Your task to perform on an android device: What's the weather going to be this weekend? Image 0: 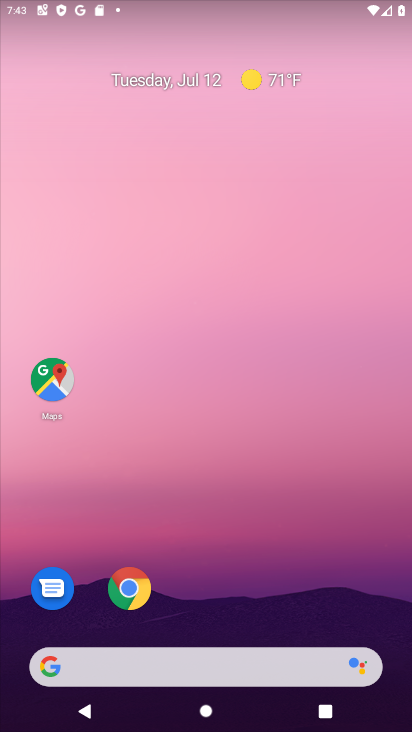
Step 0: click (121, 602)
Your task to perform on an android device: What's the weather going to be this weekend? Image 1: 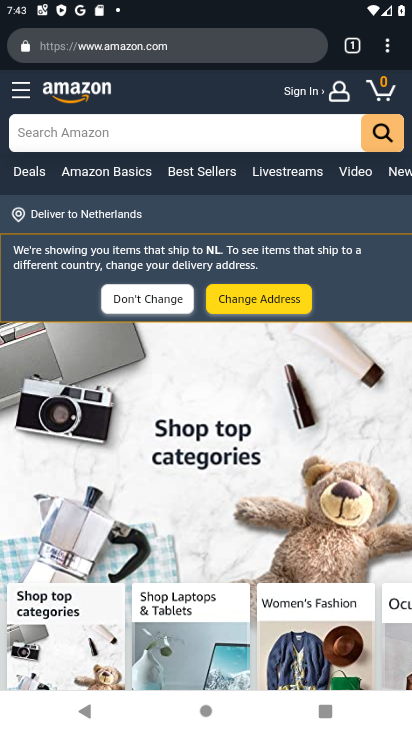
Step 1: click (122, 43)
Your task to perform on an android device: What's the weather going to be this weekend? Image 2: 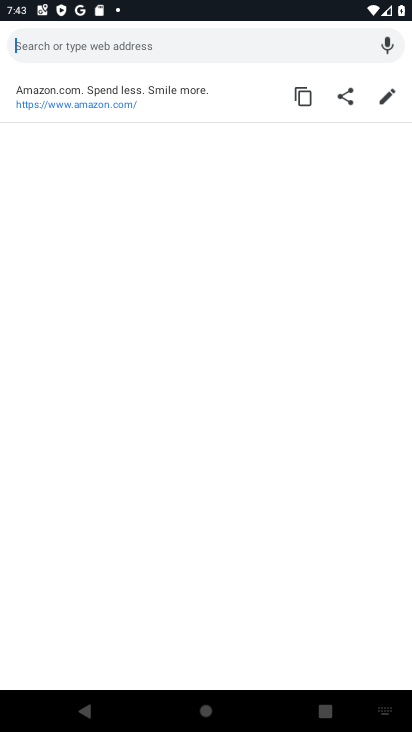
Step 2: type "What's the weather going to be this weekend?"
Your task to perform on an android device: What's the weather going to be this weekend? Image 3: 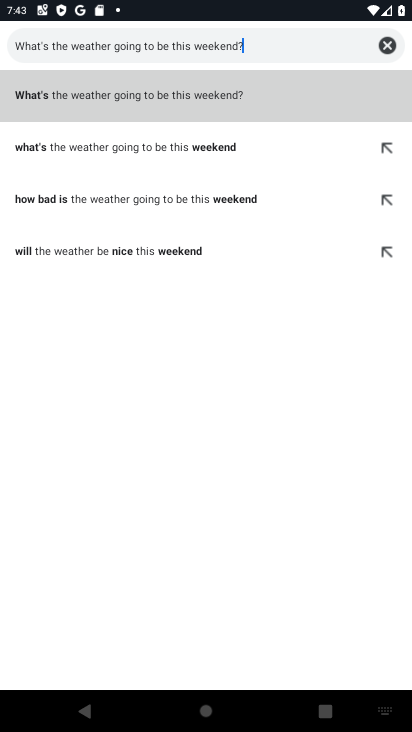
Step 3: type ""
Your task to perform on an android device: What's the weather going to be this weekend? Image 4: 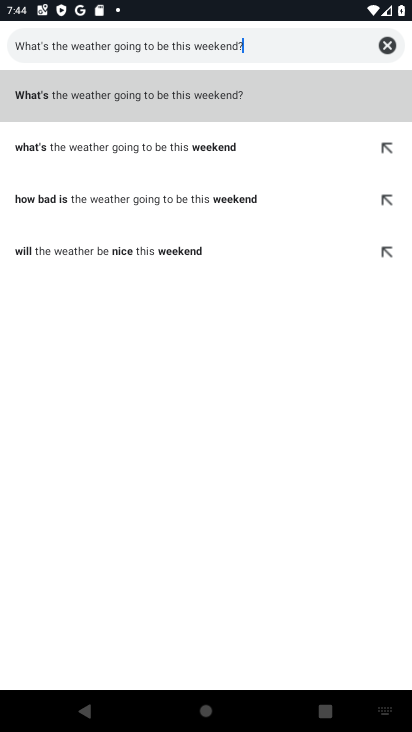
Step 4: click (138, 94)
Your task to perform on an android device: What's the weather going to be this weekend? Image 5: 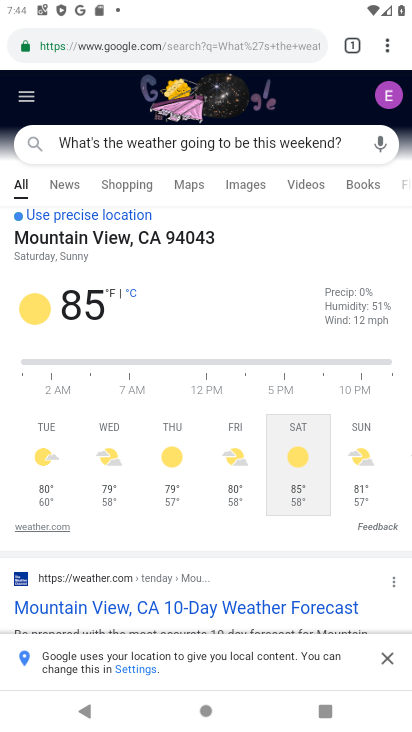
Step 5: task complete